Your task to perform on an android device: Add sony triple a to the cart on amazon Image 0: 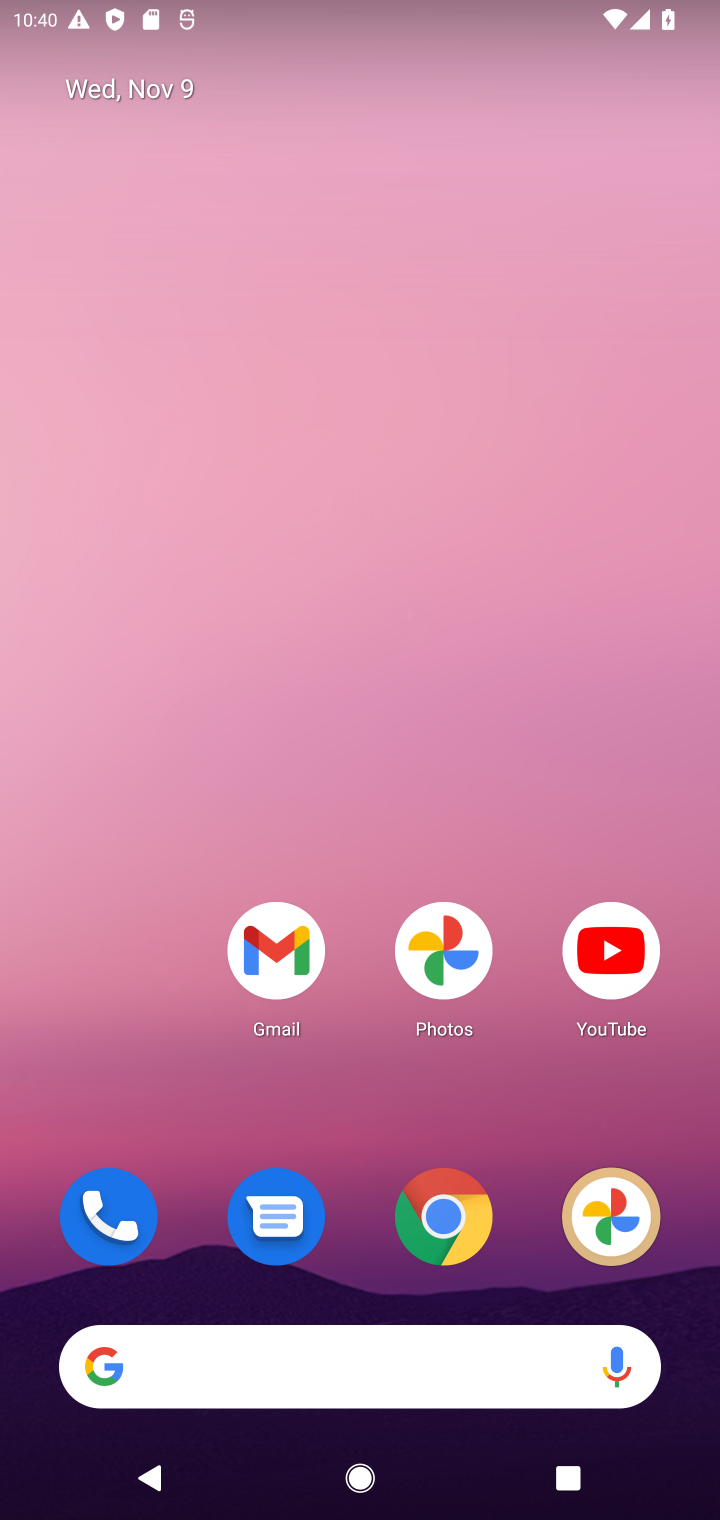
Step 0: drag from (377, 915) to (352, 43)
Your task to perform on an android device: Add sony triple a to the cart on amazon Image 1: 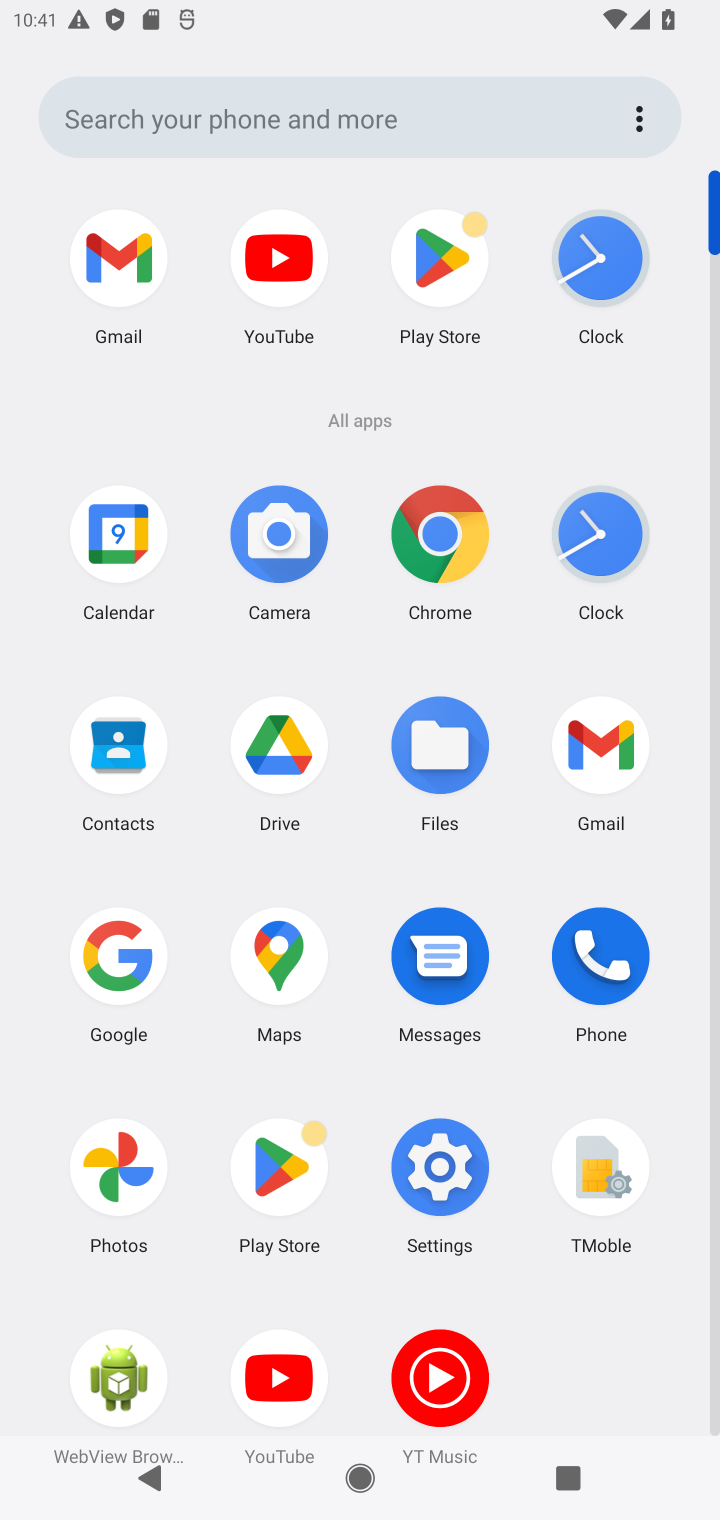
Step 1: click (434, 523)
Your task to perform on an android device: Add sony triple a to the cart on amazon Image 2: 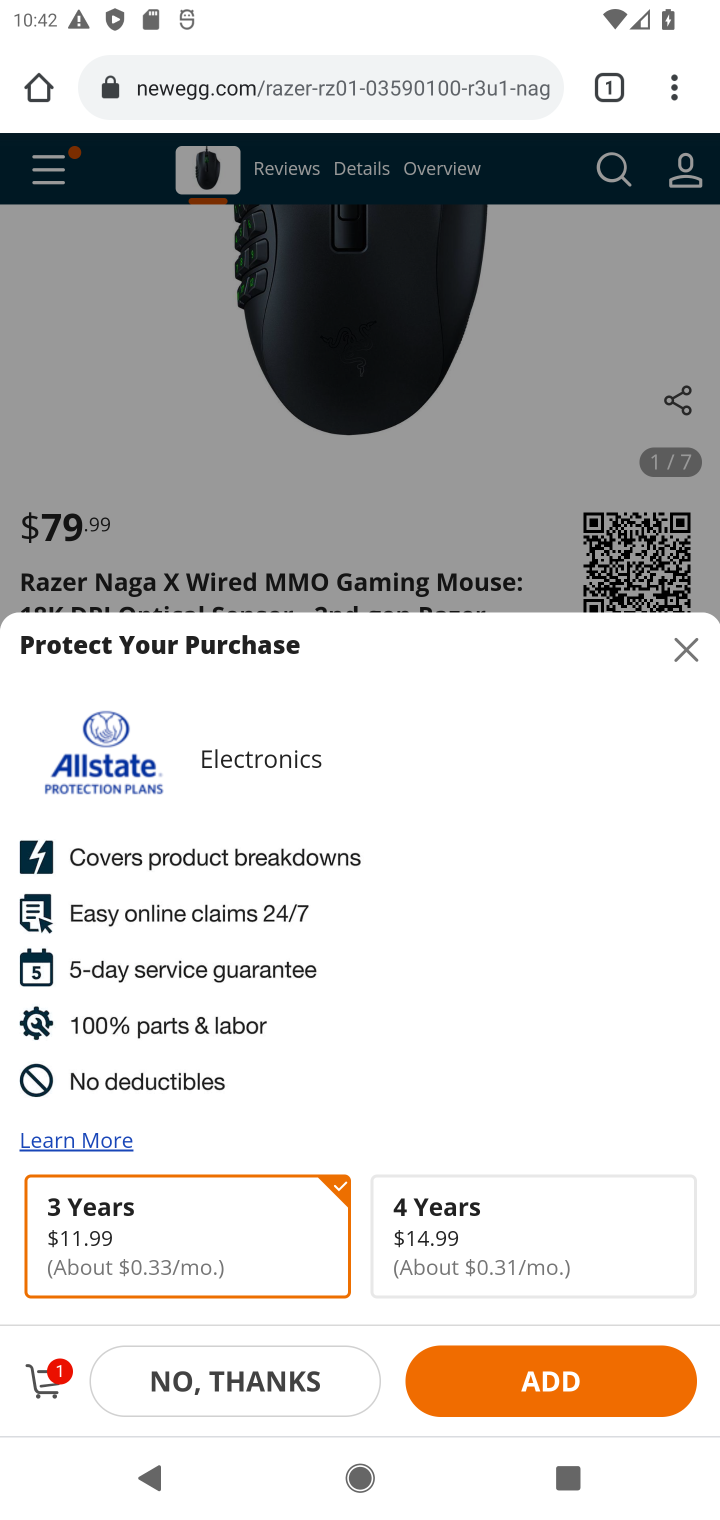
Step 2: click (415, 71)
Your task to perform on an android device: Add sony triple a to the cart on amazon Image 3: 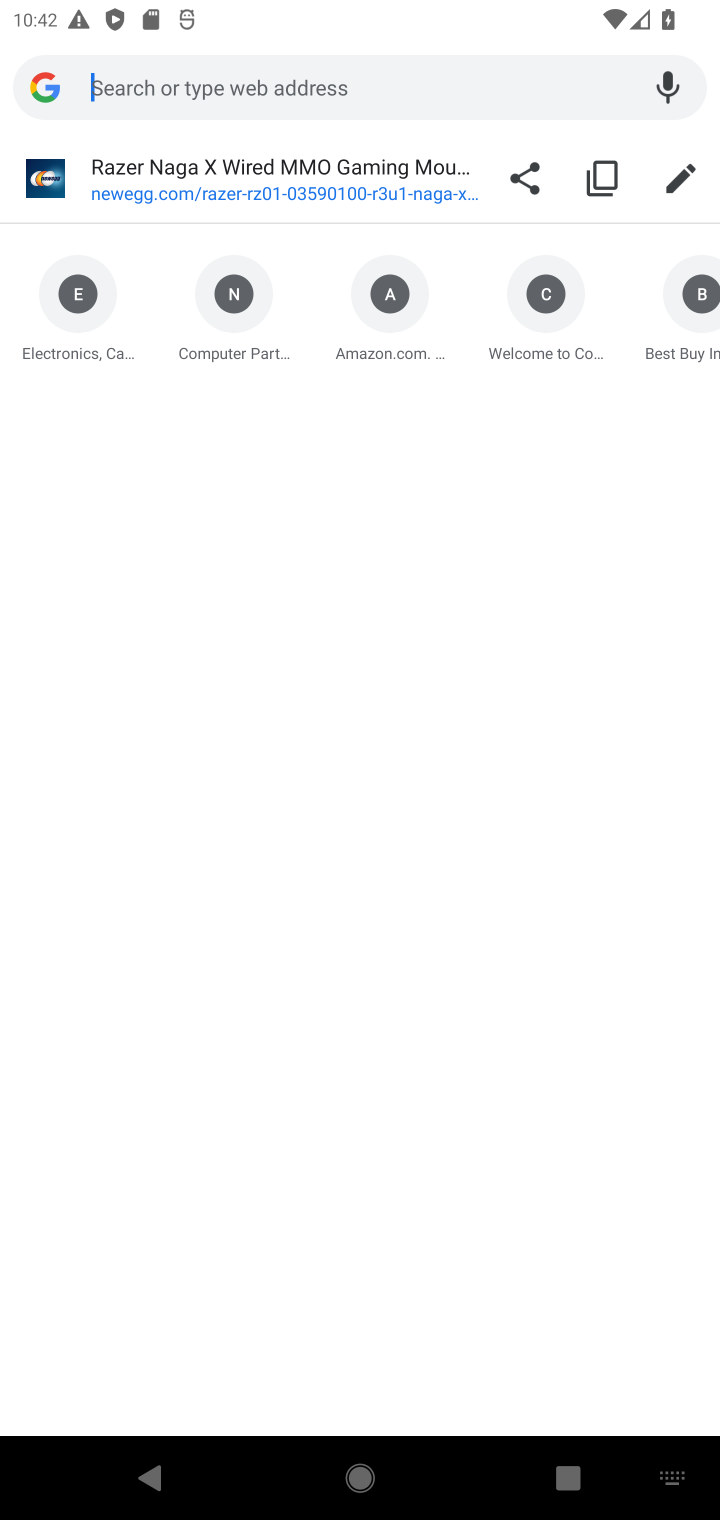
Step 3: type "amazon.com"
Your task to perform on an android device: Add sony triple a to the cart on amazon Image 4: 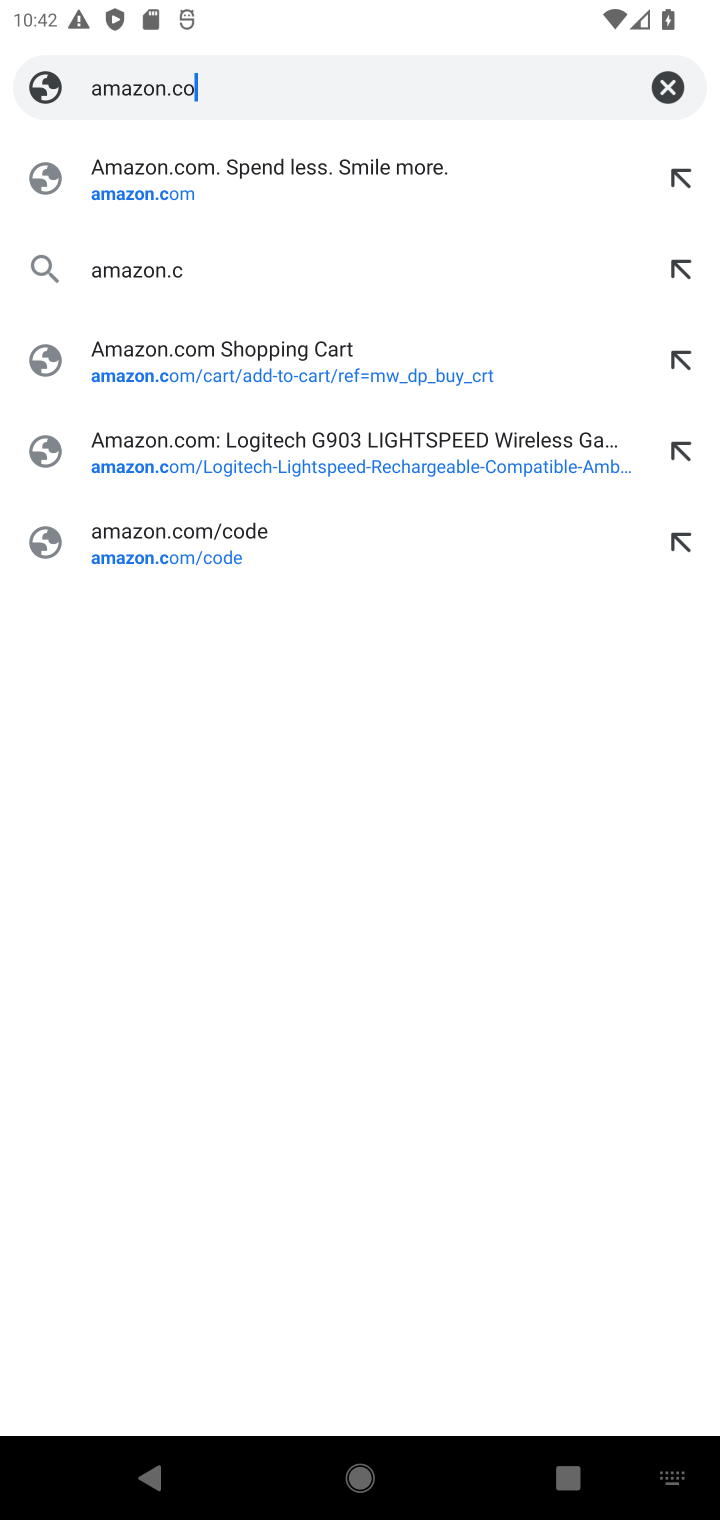
Step 4: press enter
Your task to perform on an android device: Add sony triple a to the cart on amazon Image 5: 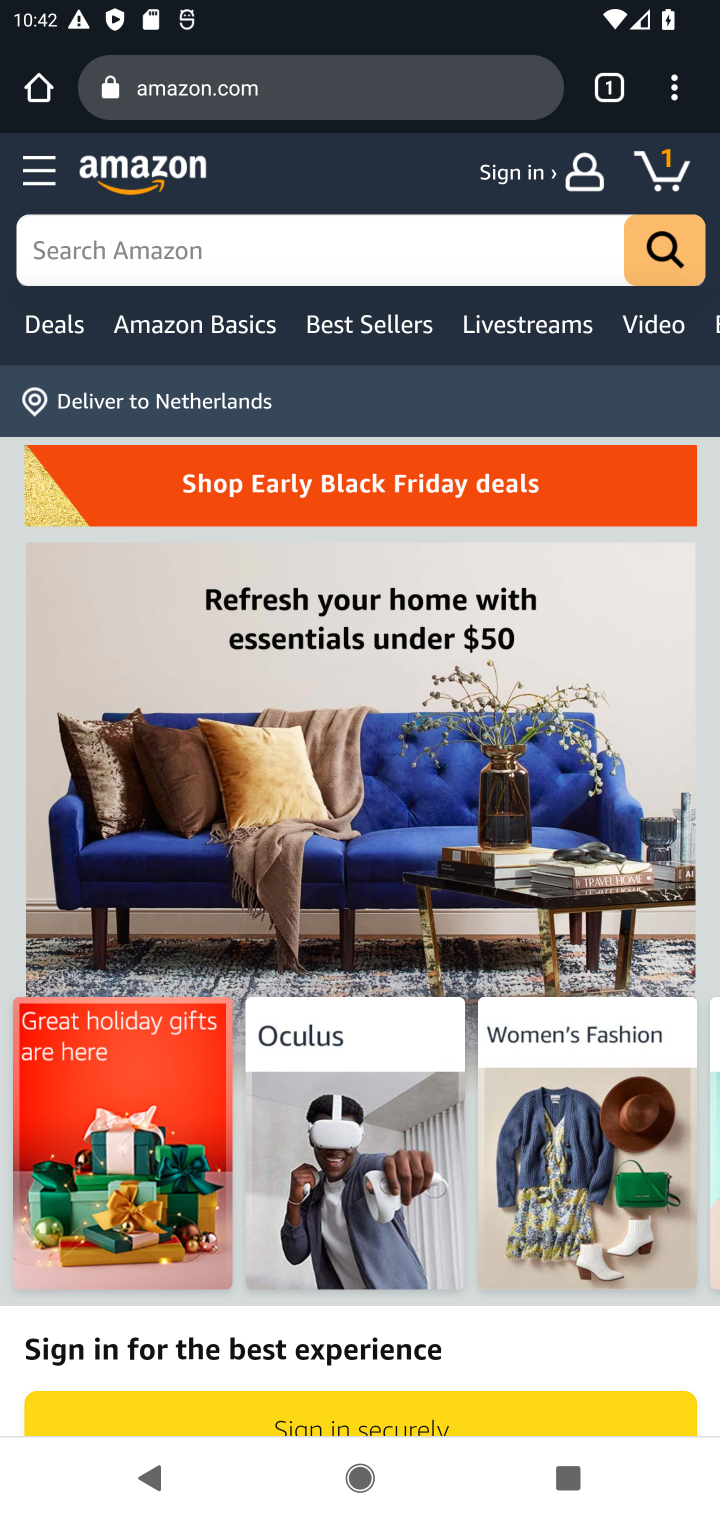
Step 5: click (310, 241)
Your task to perform on an android device: Add sony triple a to the cart on amazon Image 6: 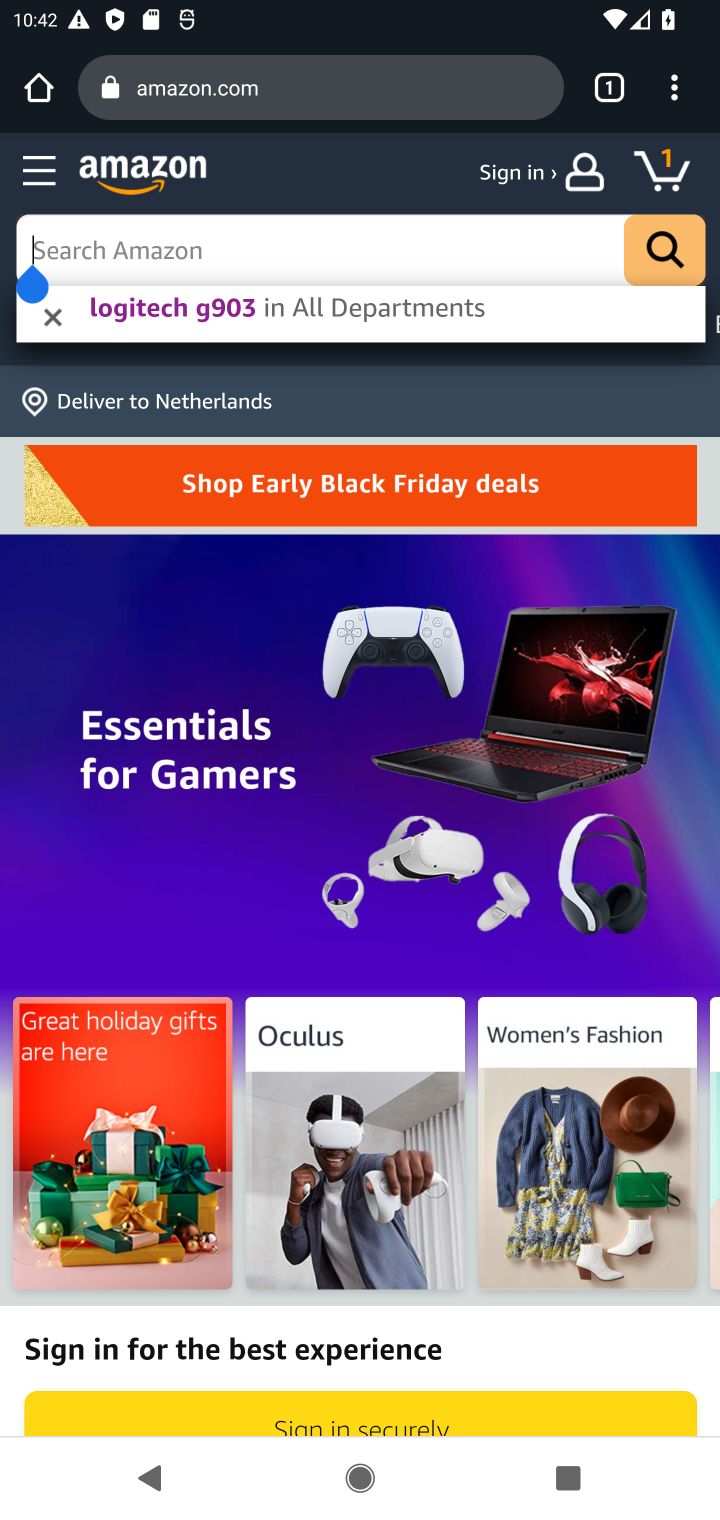
Step 6: type "sony triple a"
Your task to perform on an android device: Add sony triple a to the cart on amazon Image 7: 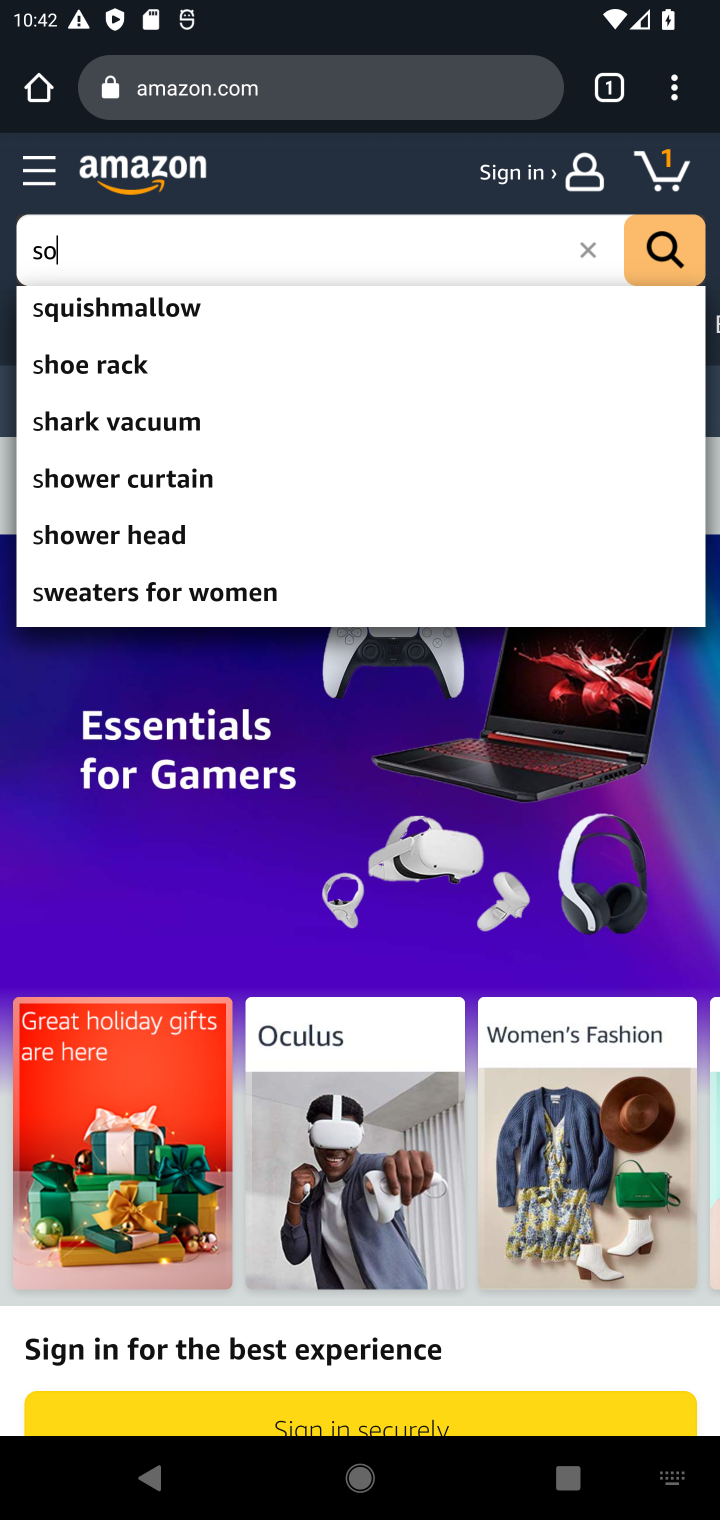
Step 7: press enter
Your task to perform on an android device: Add sony triple a to the cart on amazon Image 8: 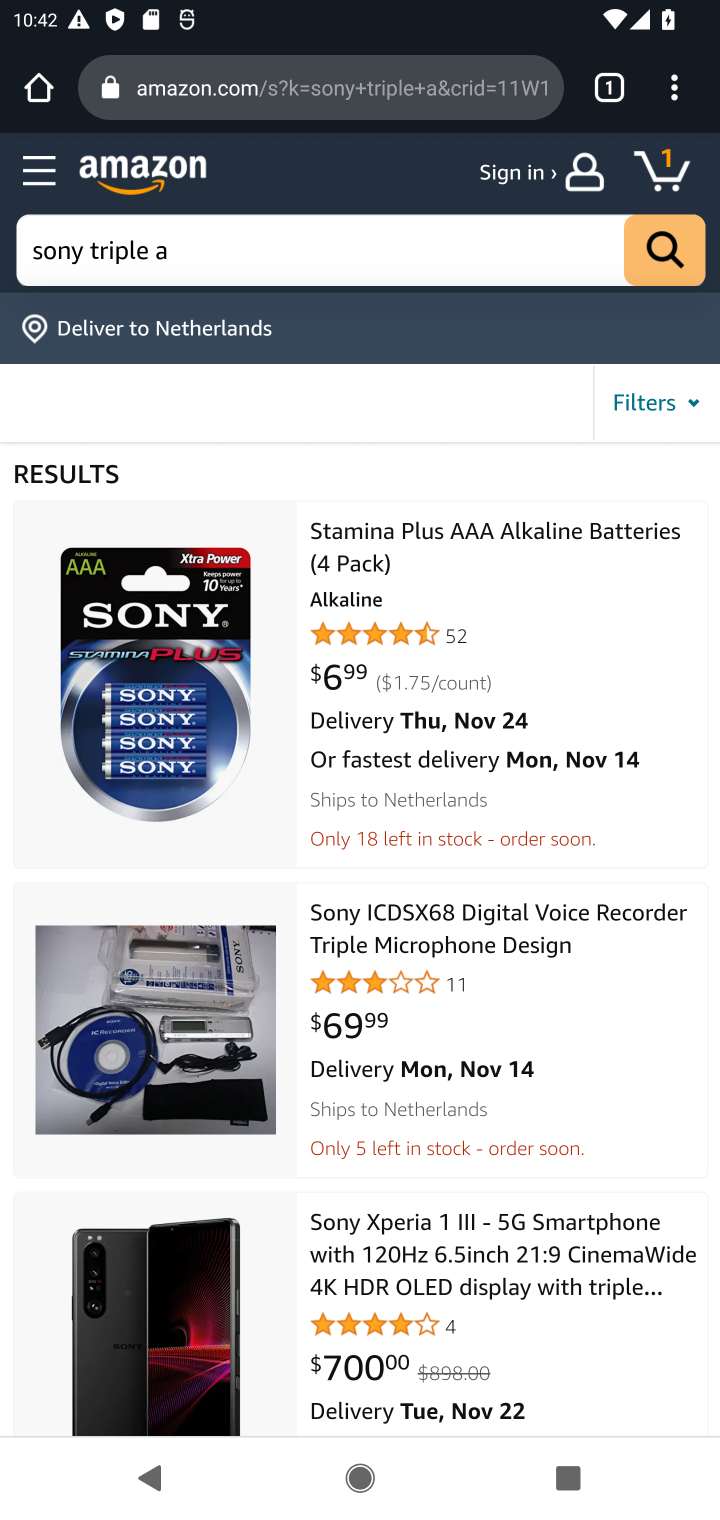
Step 8: click (142, 672)
Your task to perform on an android device: Add sony triple a to the cart on amazon Image 9: 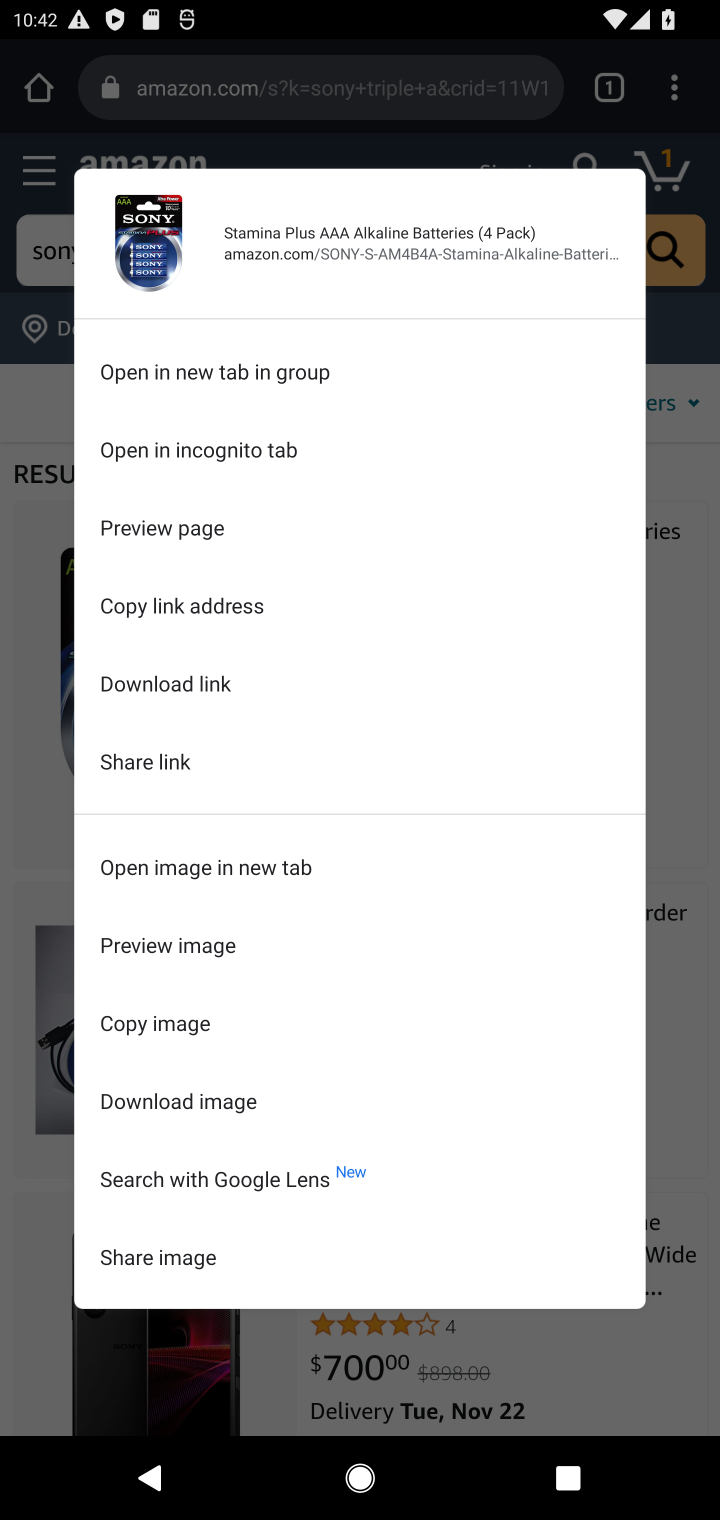
Step 9: click (1, 278)
Your task to perform on an android device: Add sony triple a to the cart on amazon Image 10: 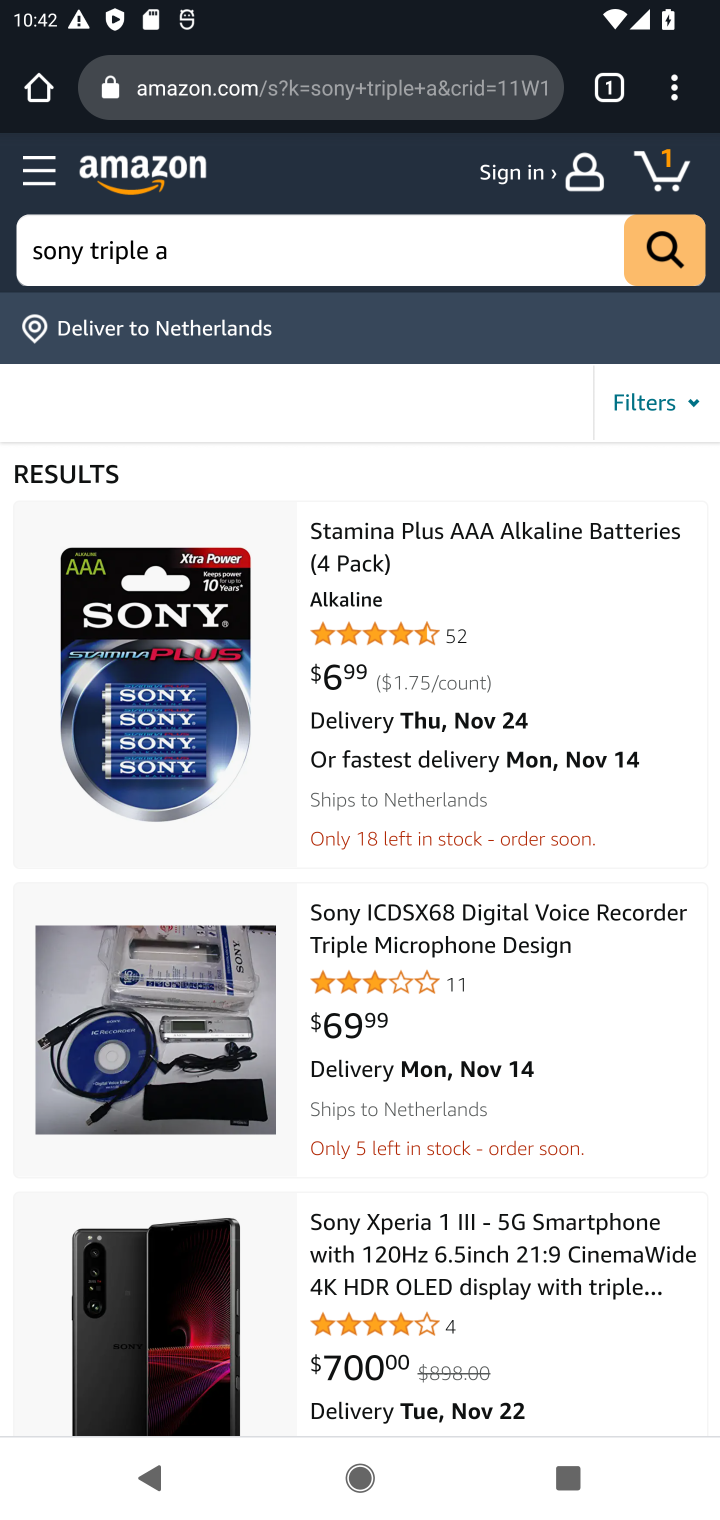
Step 10: click (194, 629)
Your task to perform on an android device: Add sony triple a to the cart on amazon Image 11: 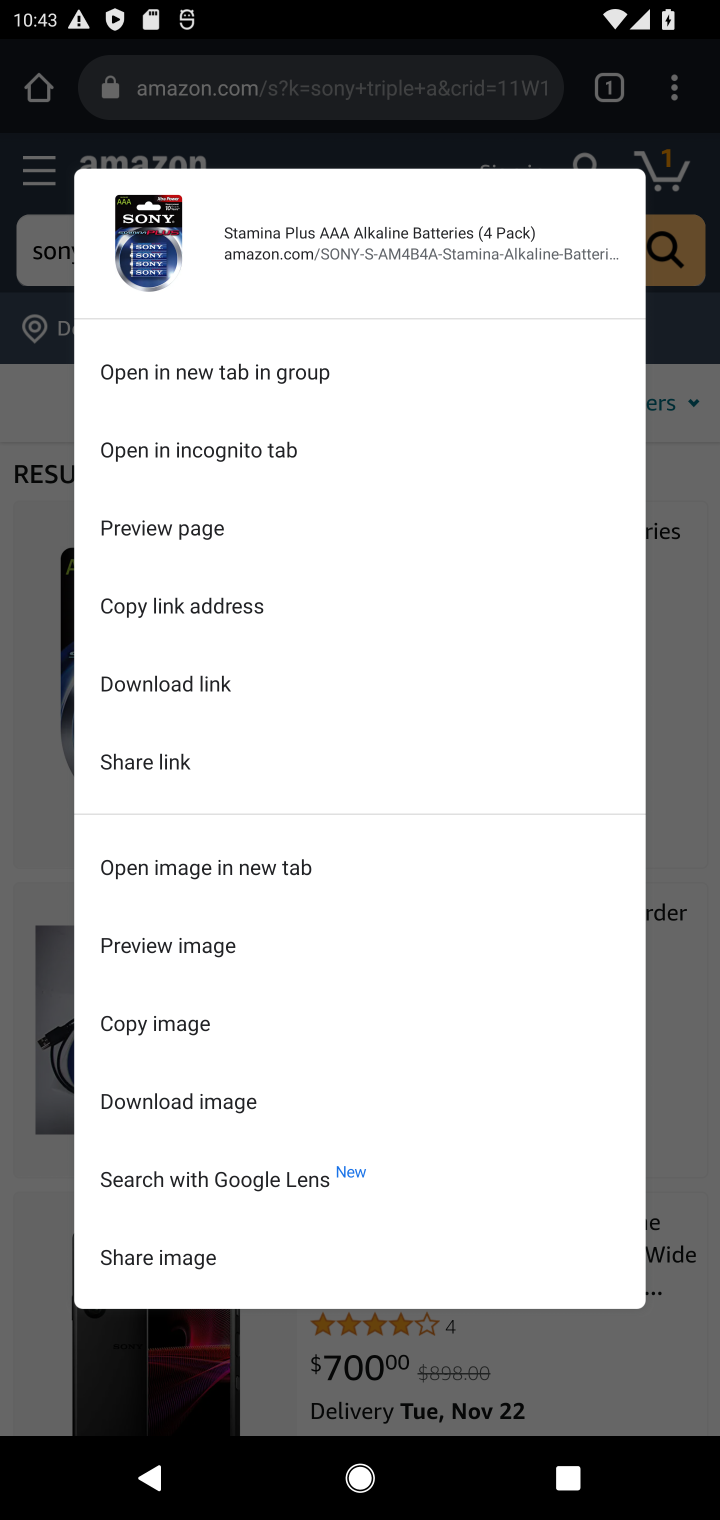
Step 11: click (687, 551)
Your task to perform on an android device: Add sony triple a to the cart on amazon Image 12: 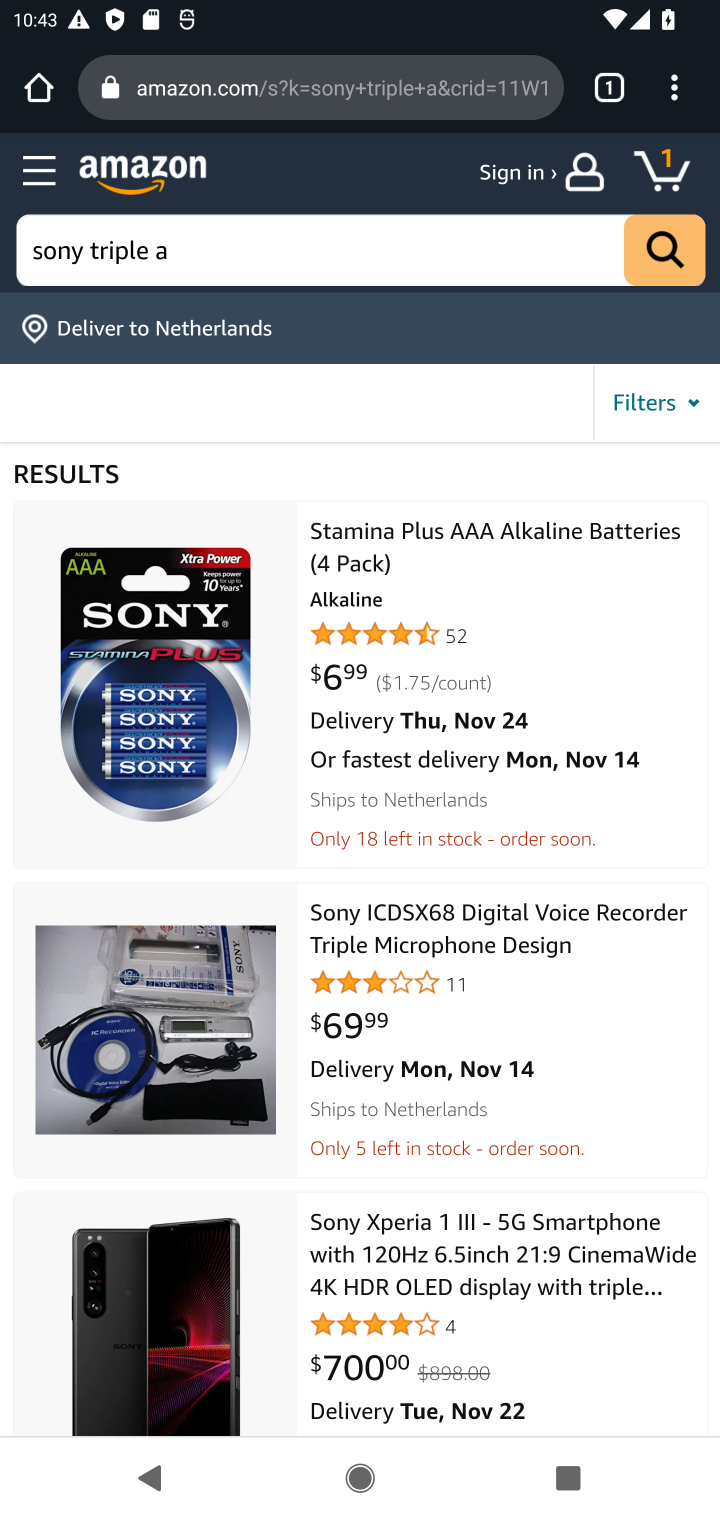
Step 12: click (226, 614)
Your task to perform on an android device: Add sony triple a to the cart on amazon Image 13: 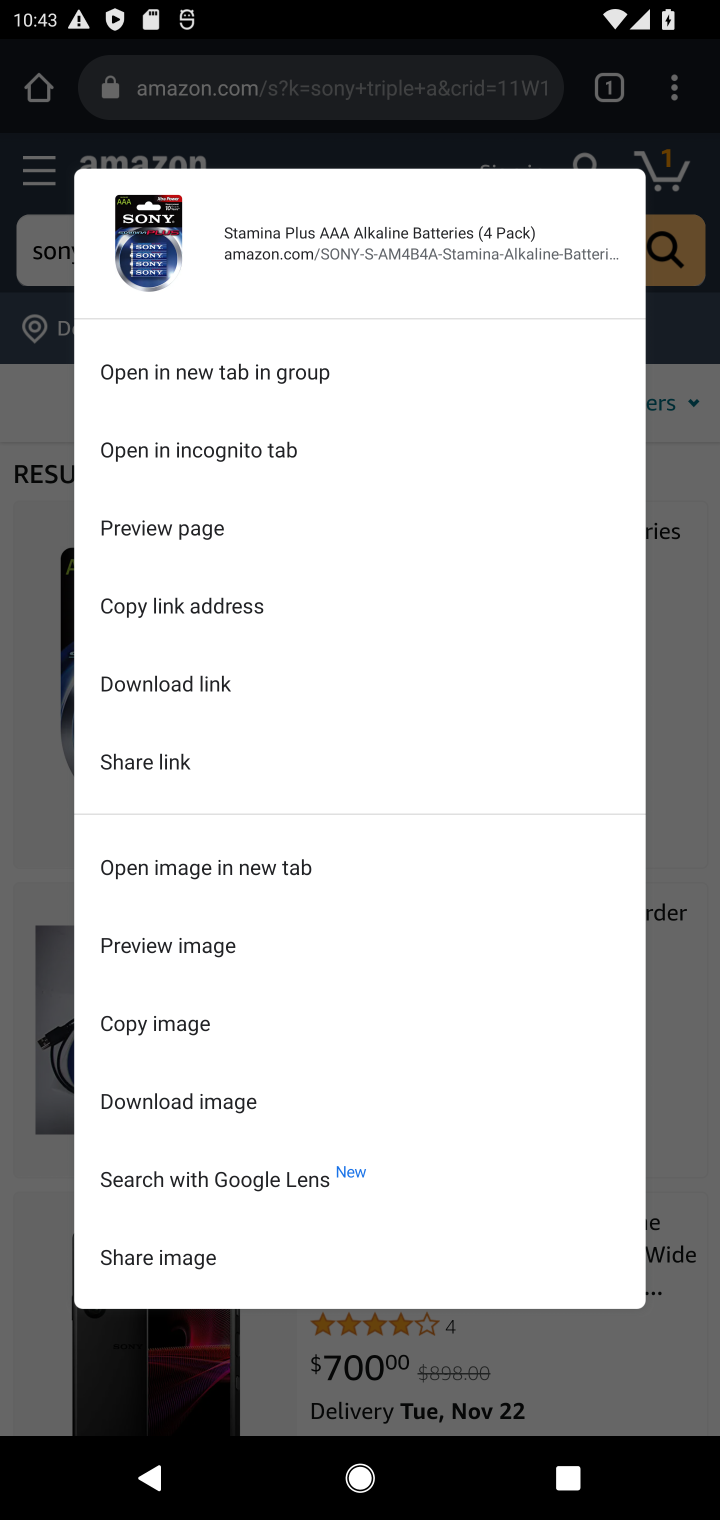
Step 13: click (694, 566)
Your task to perform on an android device: Add sony triple a to the cart on amazon Image 14: 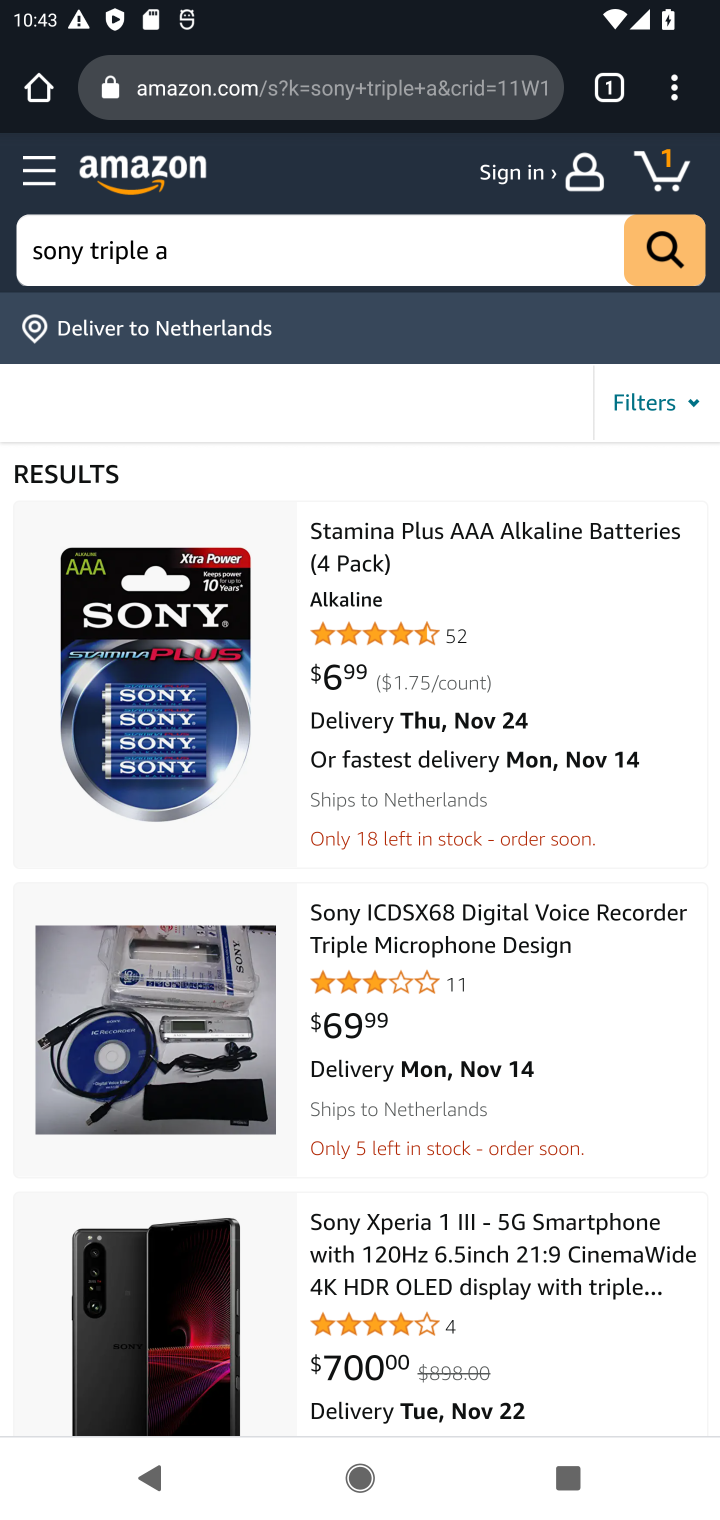
Step 14: click (384, 762)
Your task to perform on an android device: Add sony triple a to the cart on amazon Image 15: 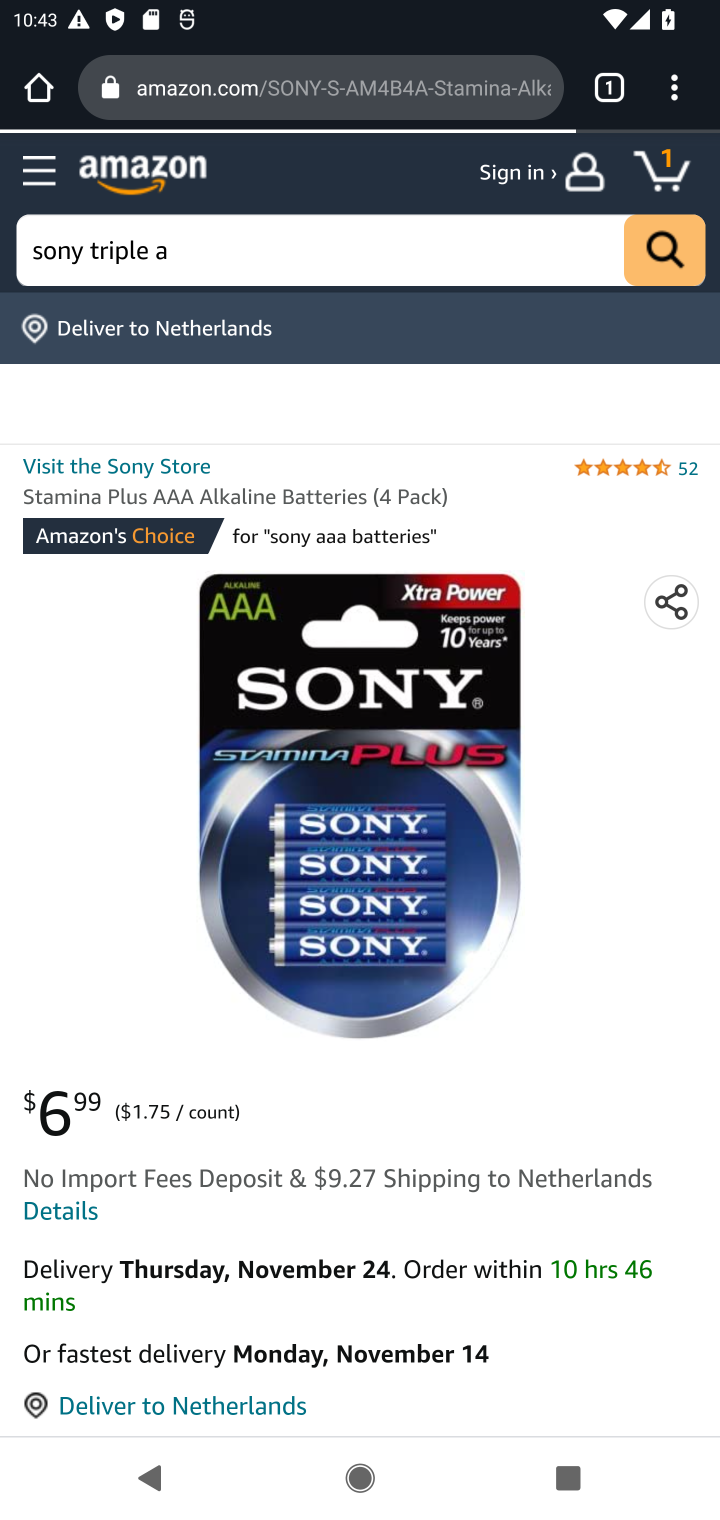
Step 15: drag from (431, 1067) to (358, 276)
Your task to perform on an android device: Add sony triple a to the cart on amazon Image 16: 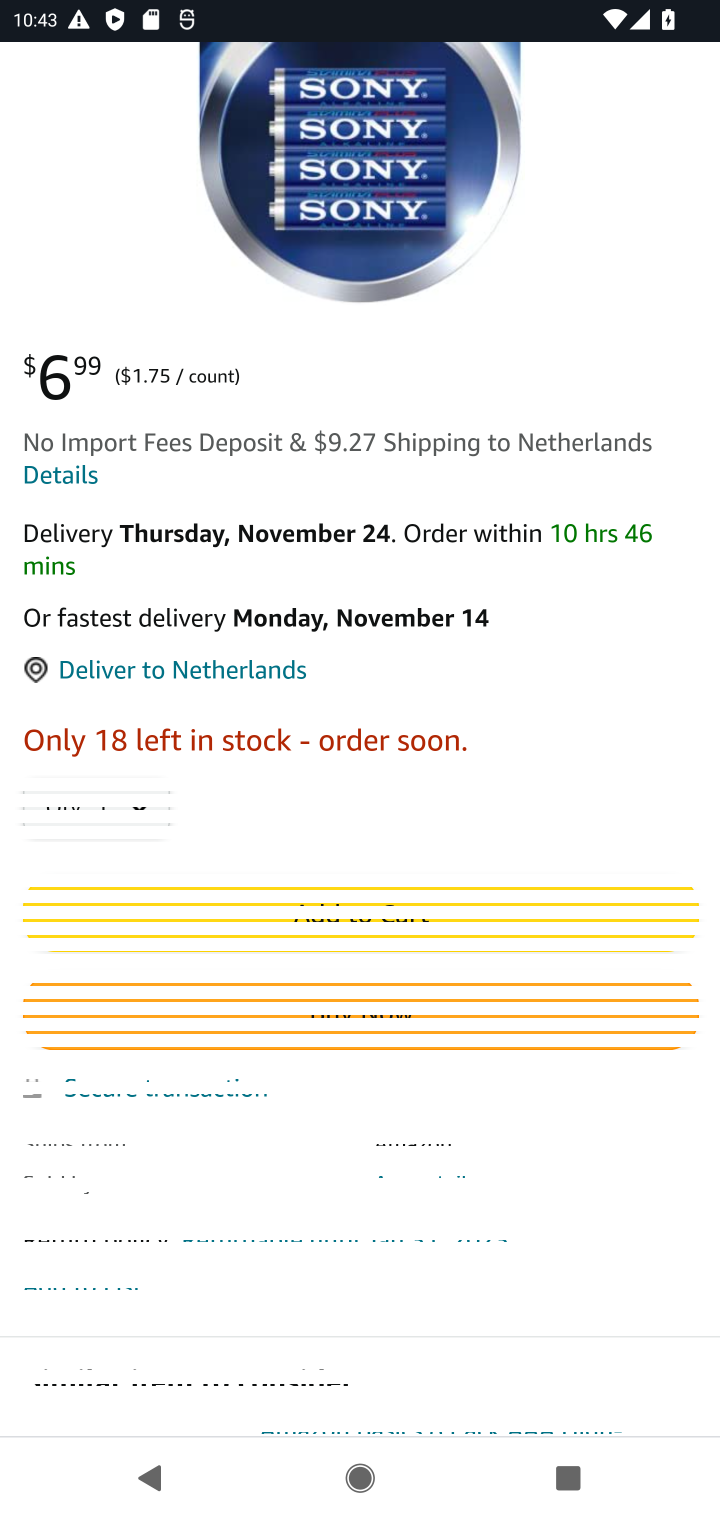
Step 16: click (540, 922)
Your task to perform on an android device: Add sony triple a to the cart on amazon Image 17: 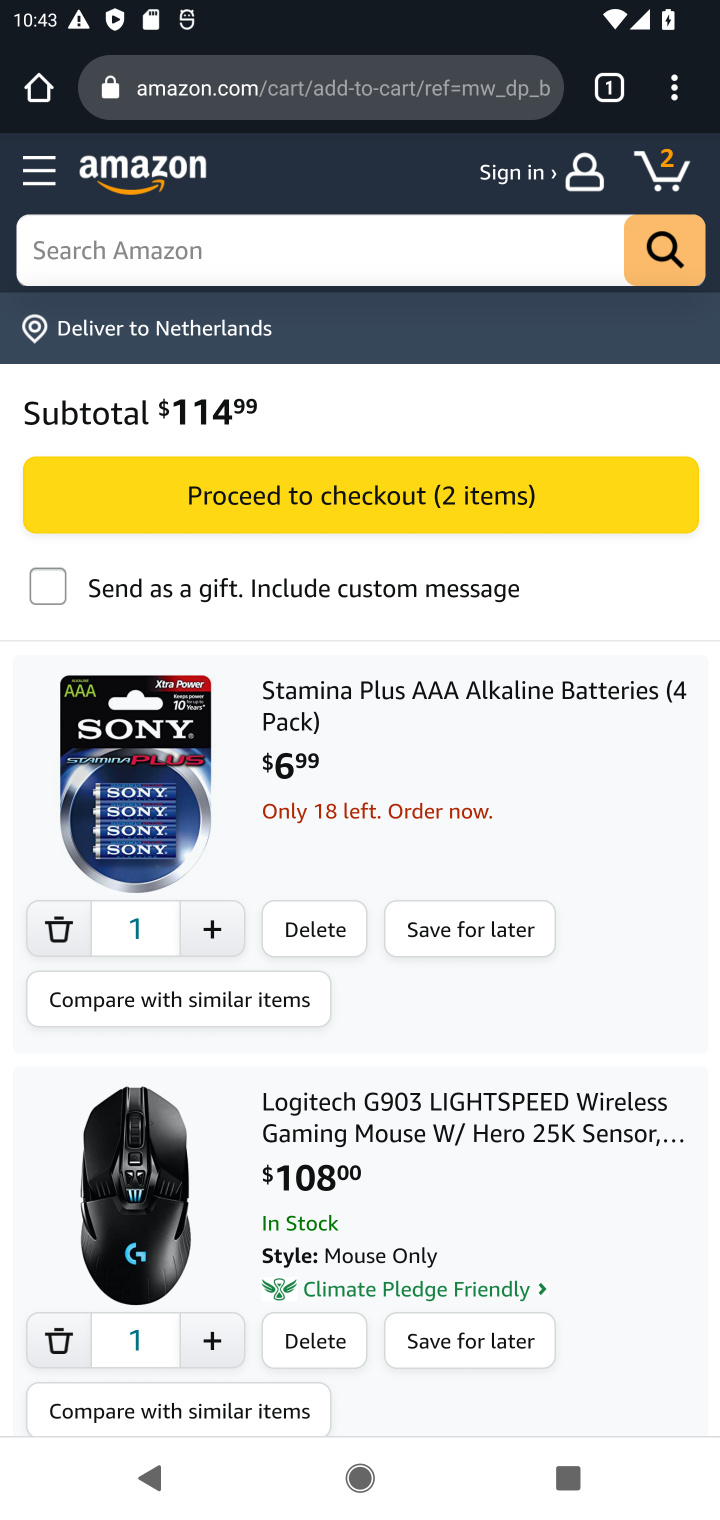
Step 17: task complete